Your task to perform on an android device: open app "NewsBreak: Local News & Alerts" Image 0: 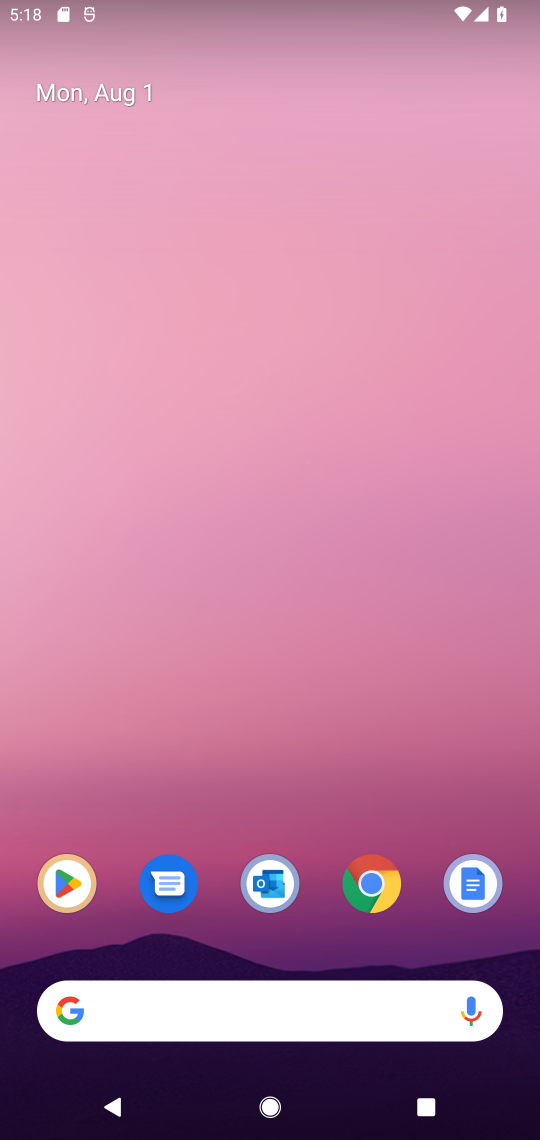
Step 0: drag from (266, 994) to (350, 400)
Your task to perform on an android device: open app "NewsBreak: Local News & Alerts" Image 1: 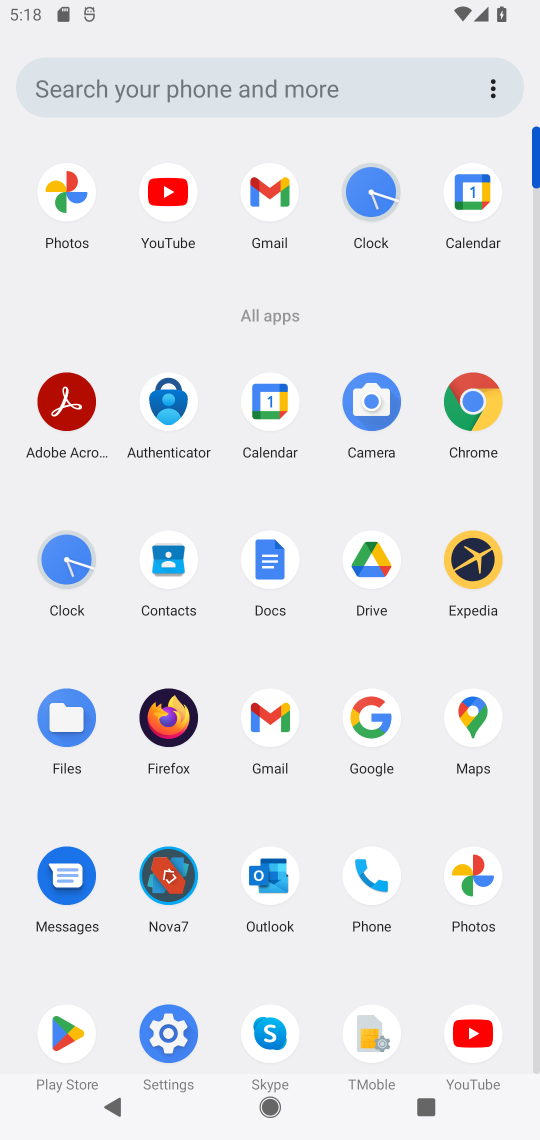
Step 1: click (72, 1032)
Your task to perform on an android device: open app "NewsBreak: Local News & Alerts" Image 2: 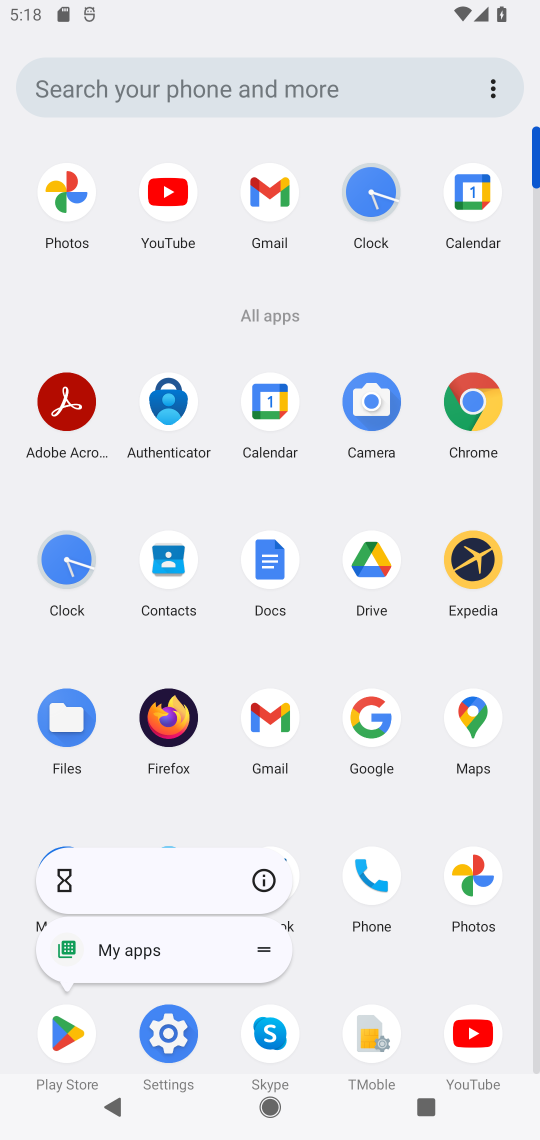
Step 2: click (69, 1030)
Your task to perform on an android device: open app "NewsBreak: Local News & Alerts" Image 3: 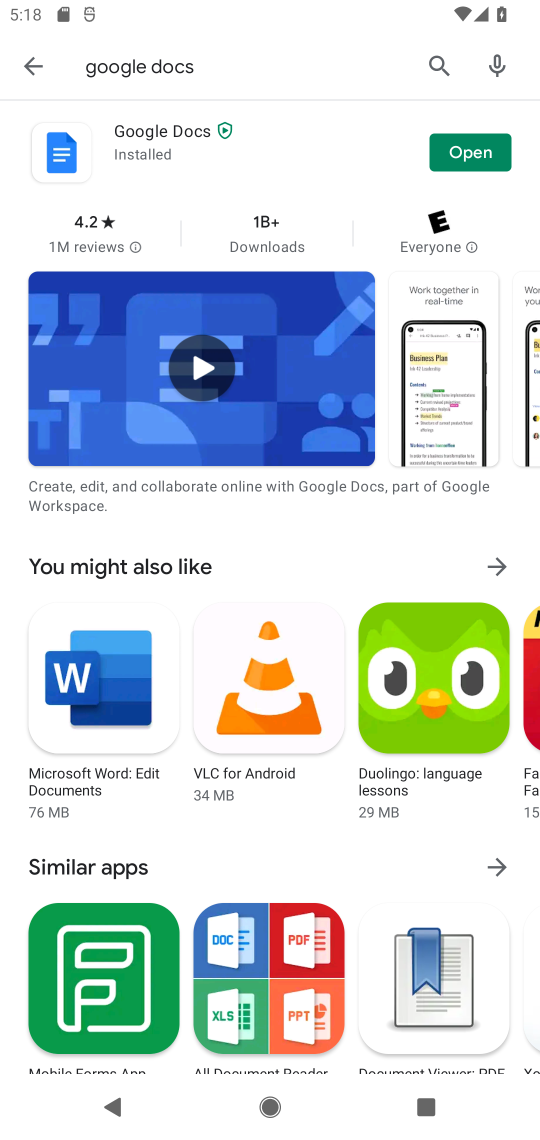
Step 3: click (418, 141)
Your task to perform on an android device: open app "NewsBreak: Local News & Alerts" Image 4: 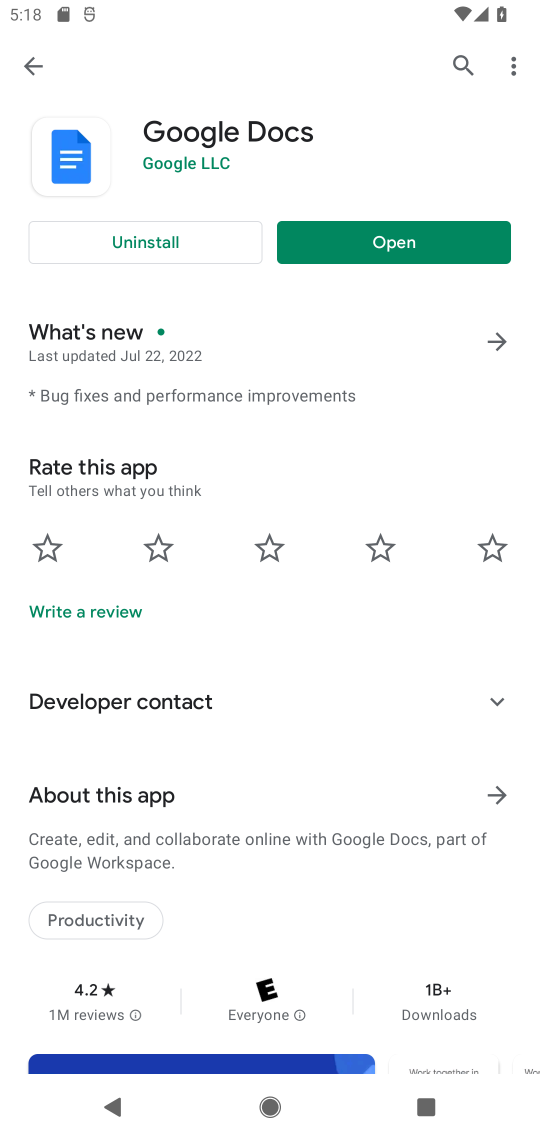
Step 4: click (456, 67)
Your task to perform on an android device: open app "NewsBreak: Local News & Alerts" Image 5: 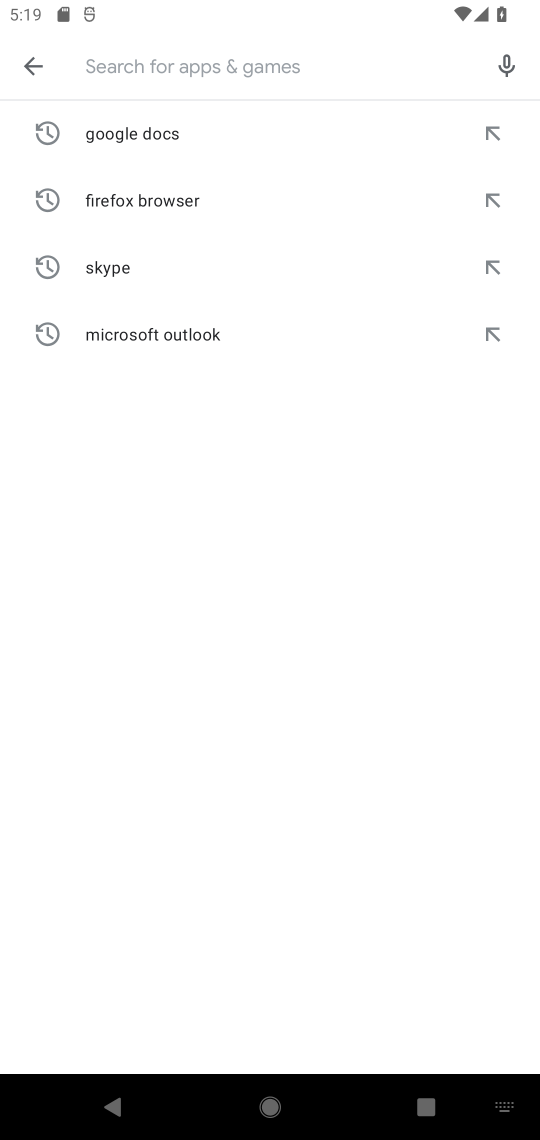
Step 5: type "NewsBreak: Local News & Alerts"
Your task to perform on an android device: open app "NewsBreak: Local News & Alerts" Image 6: 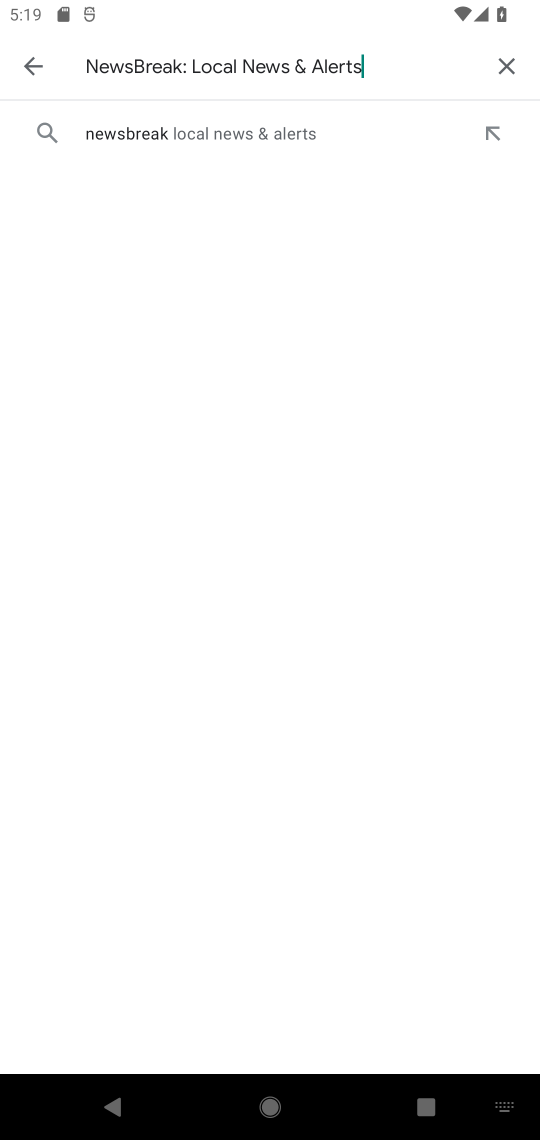
Step 6: click (250, 130)
Your task to perform on an android device: open app "NewsBreak: Local News & Alerts" Image 7: 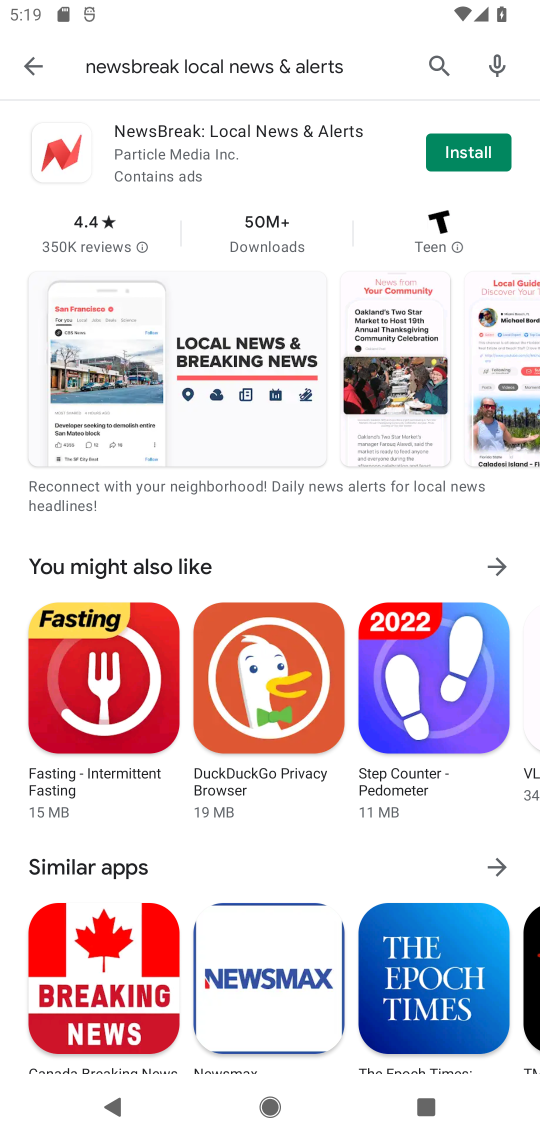
Step 7: click (463, 154)
Your task to perform on an android device: open app "NewsBreak: Local News & Alerts" Image 8: 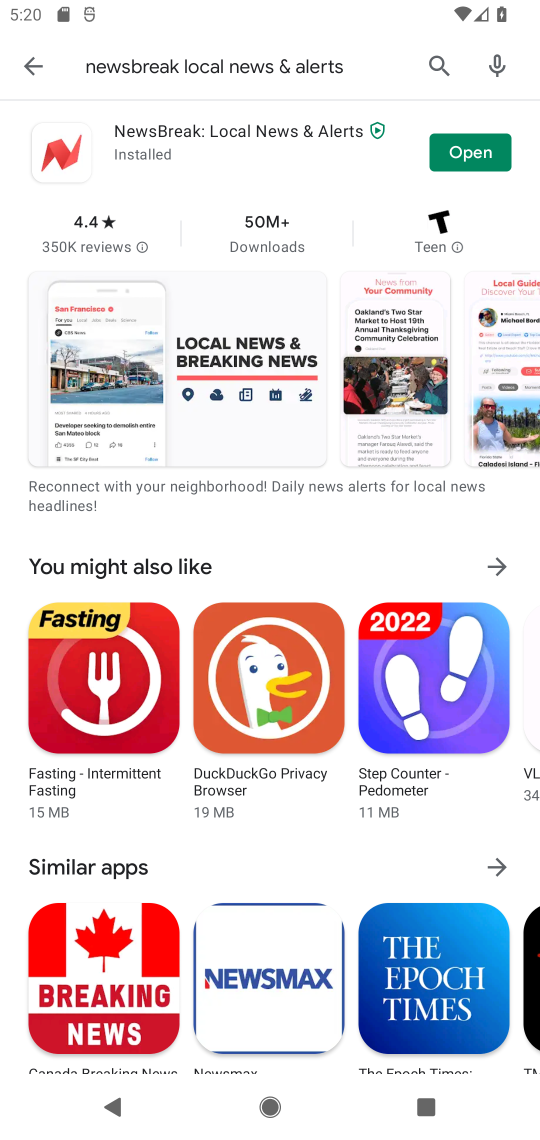
Step 8: click (470, 153)
Your task to perform on an android device: open app "NewsBreak: Local News & Alerts" Image 9: 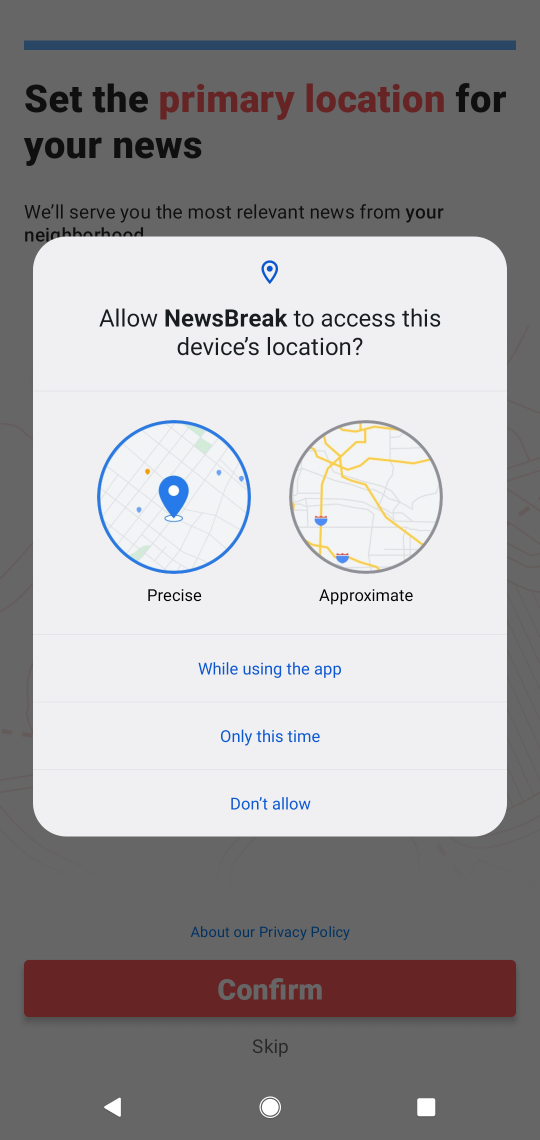
Step 9: task complete